Your task to perform on an android device: Set the phone to "Do not disturb". Image 0: 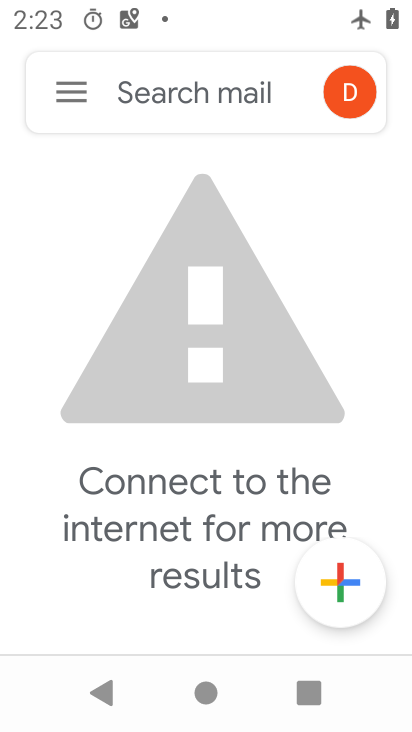
Step 0: press home button
Your task to perform on an android device: Set the phone to "Do not disturb". Image 1: 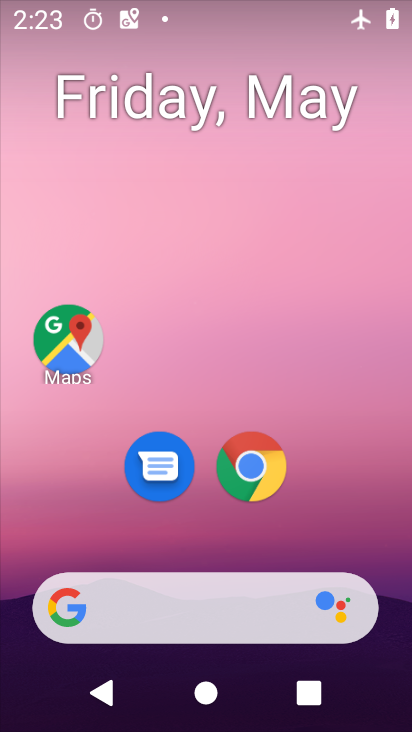
Step 1: drag from (364, 532) to (395, 9)
Your task to perform on an android device: Set the phone to "Do not disturb". Image 2: 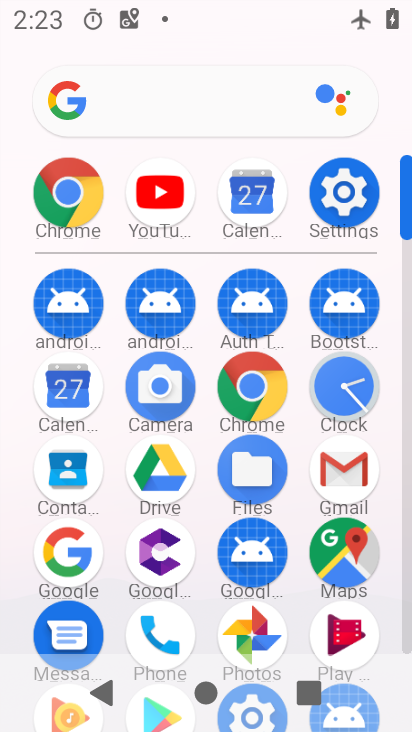
Step 2: click (356, 176)
Your task to perform on an android device: Set the phone to "Do not disturb". Image 3: 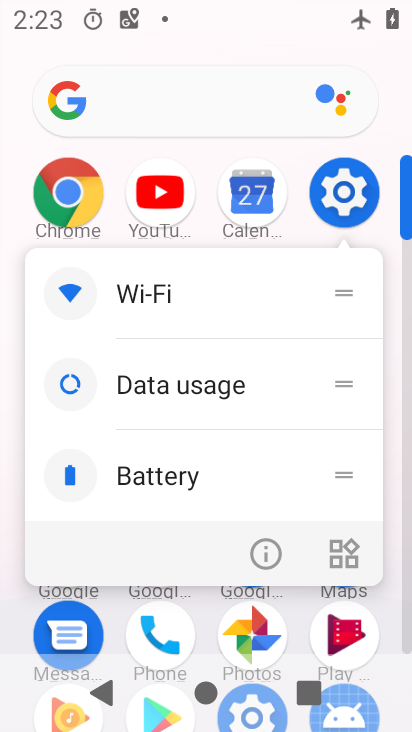
Step 3: click (356, 176)
Your task to perform on an android device: Set the phone to "Do not disturb". Image 4: 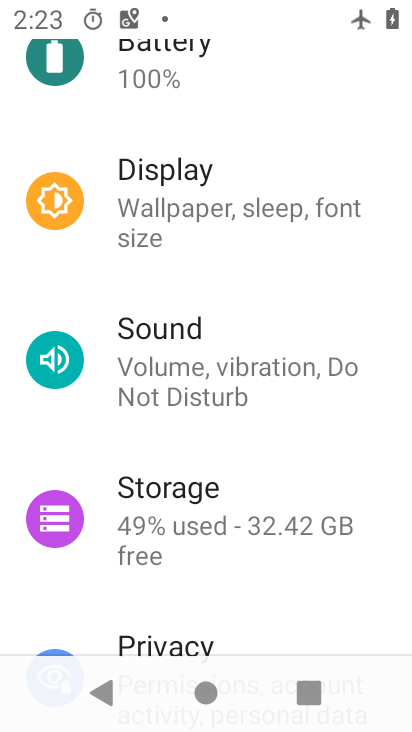
Step 4: drag from (196, 140) to (201, 537)
Your task to perform on an android device: Set the phone to "Do not disturb". Image 5: 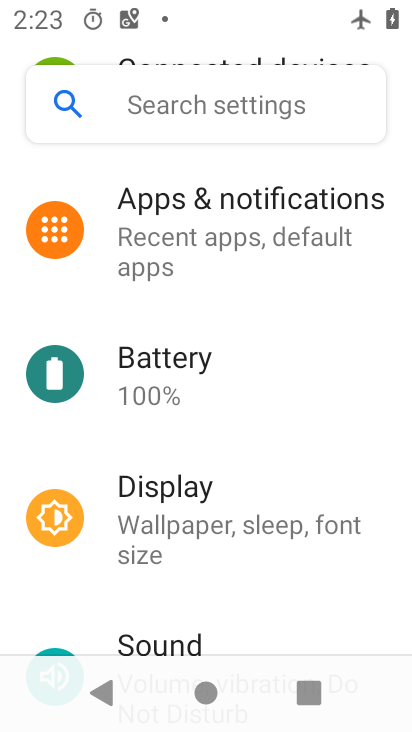
Step 5: drag from (237, 226) to (287, 629)
Your task to perform on an android device: Set the phone to "Do not disturb". Image 6: 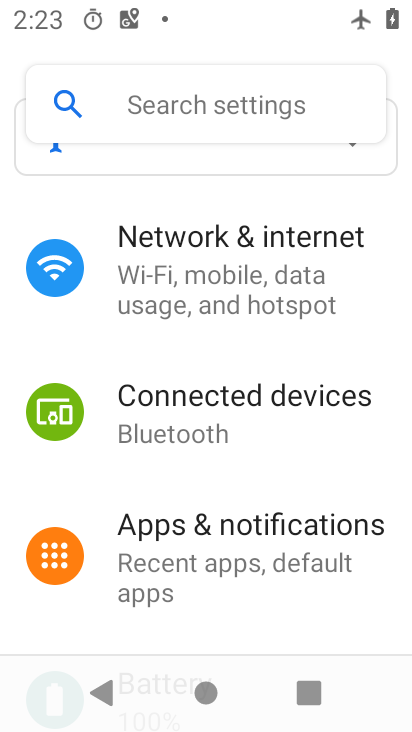
Step 6: drag from (245, 610) to (285, 237)
Your task to perform on an android device: Set the phone to "Do not disturb". Image 7: 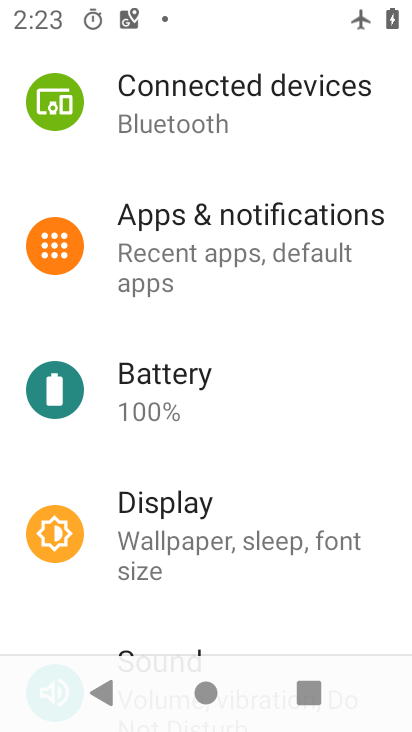
Step 7: drag from (237, 605) to (287, 179)
Your task to perform on an android device: Set the phone to "Do not disturb". Image 8: 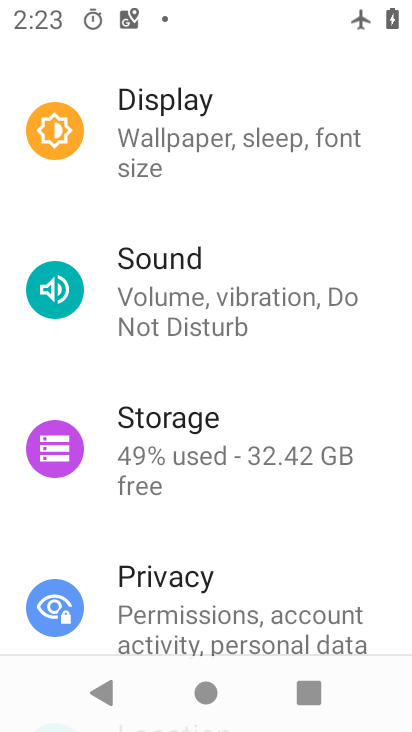
Step 8: drag from (246, 541) to (303, 150)
Your task to perform on an android device: Set the phone to "Do not disturb". Image 9: 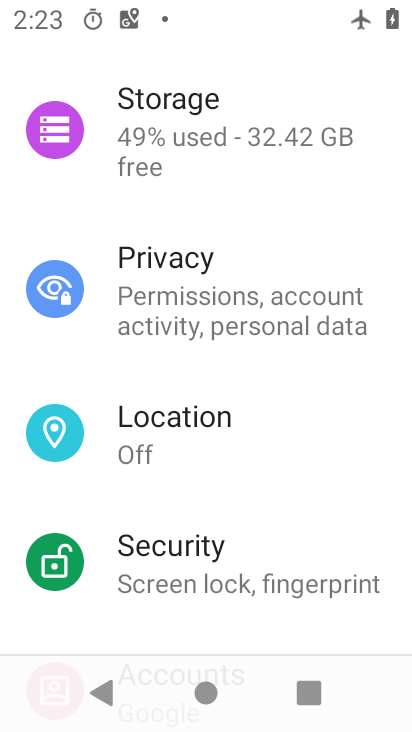
Step 9: drag from (265, 563) to (332, 129)
Your task to perform on an android device: Set the phone to "Do not disturb". Image 10: 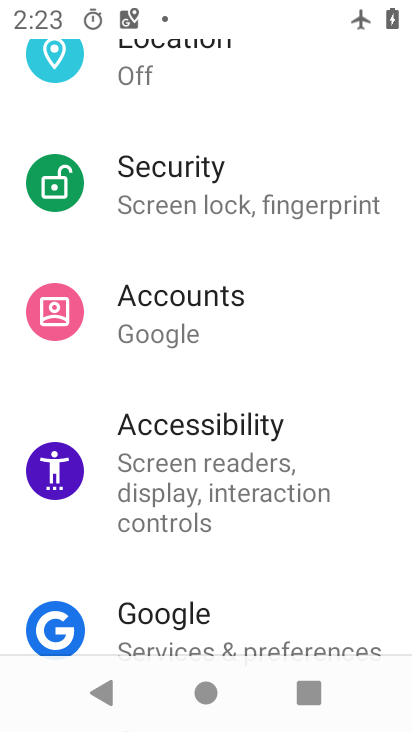
Step 10: drag from (248, 636) to (312, 188)
Your task to perform on an android device: Set the phone to "Do not disturb". Image 11: 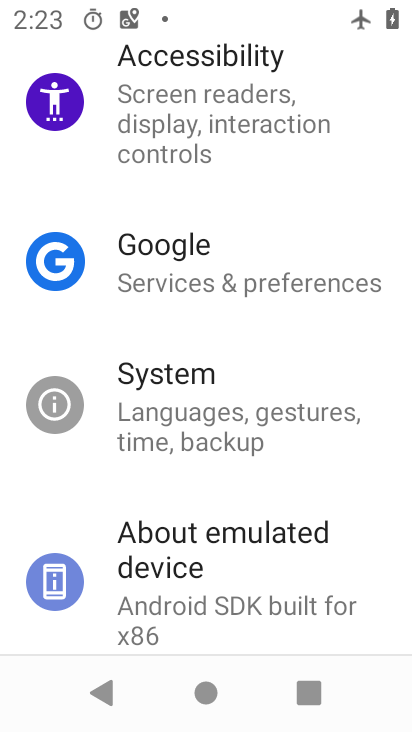
Step 11: drag from (230, 592) to (308, 148)
Your task to perform on an android device: Set the phone to "Do not disturb". Image 12: 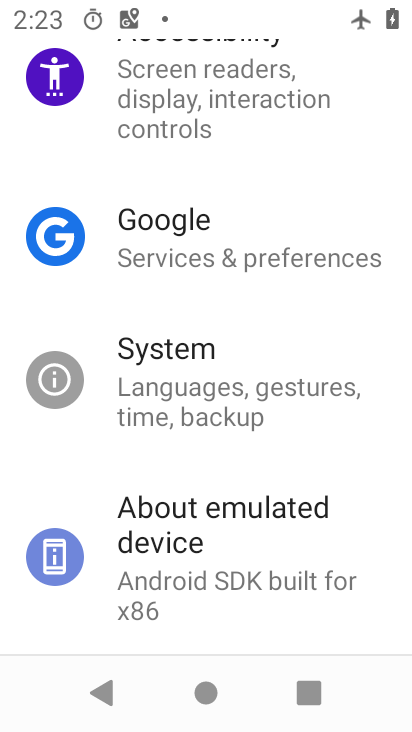
Step 12: drag from (308, 161) to (265, 624)
Your task to perform on an android device: Set the phone to "Do not disturb". Image 13: 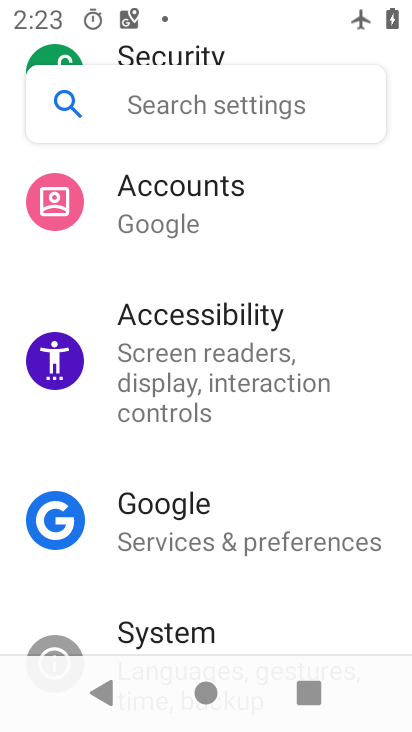
Step 13: drag from (226, 170) to (214, 715)
Your task to perform on an android device: Set the phone to "Do not disturb". Image 14: 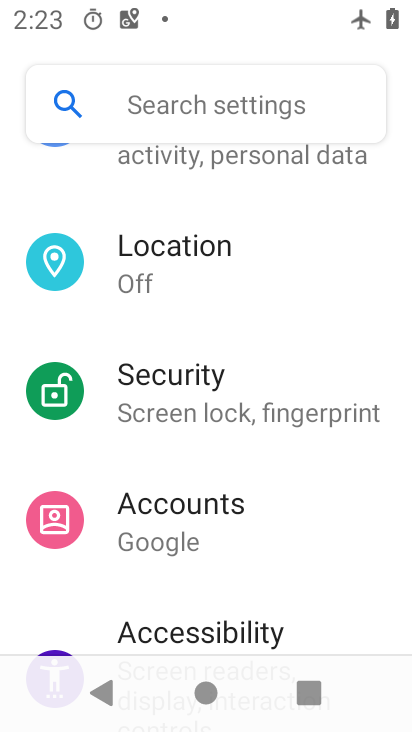
Step 14: drag from (282, 342) to (250, 662)
Your task to perform on an android device: Set the phone to "Do not disturb". Image 15: 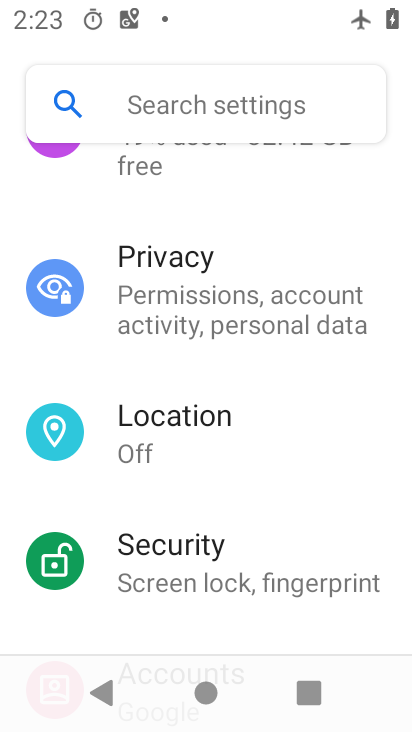
Step 15: drag from (273, 222) to (251, 683)
Your task to perform on an android device: Set the phone to "Do not disturb". Image 16: 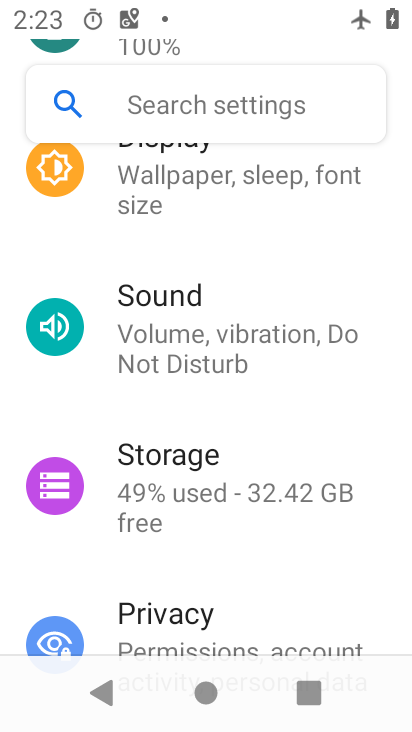
Step 16: click (221, 319)
Your task to perform on an android device: Set the phone to "Do not disturb". Image 17: 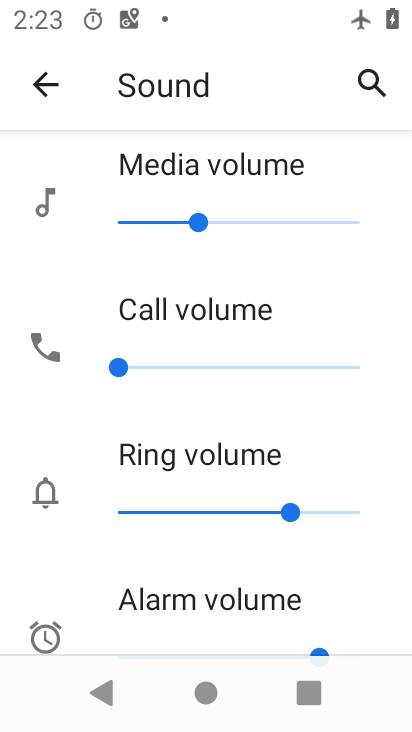
Step 17: drag from (256, 597) to (352, 214)
Your task to perform on an android device: Set the phone to "Do not disturb". Image 18: 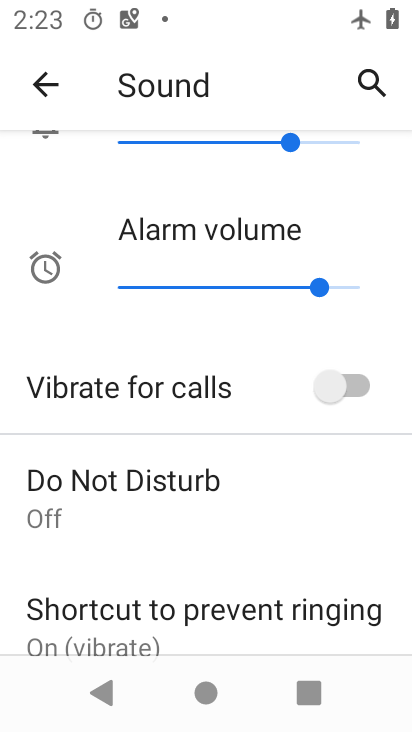
Step 18: drag from (295, 267) to (314, 566)
Your task to perform on an android device: Set the phone to "Do not disturb". Image 19: 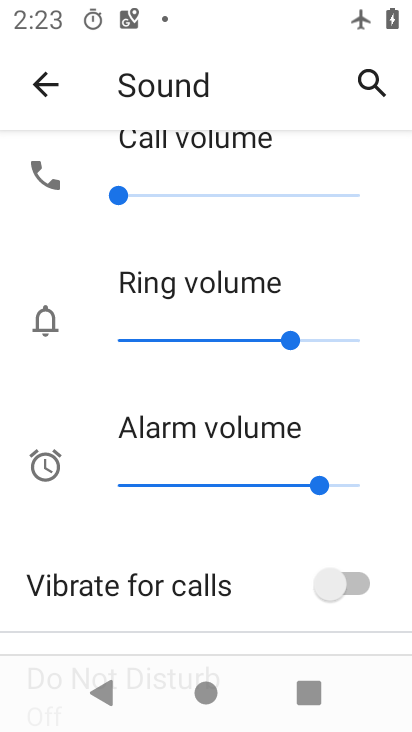
Step 19: drag from (279, 525) to (308, 134)
Your task to perform on an android device: Set the phone to "Do not disturb". Image 20: 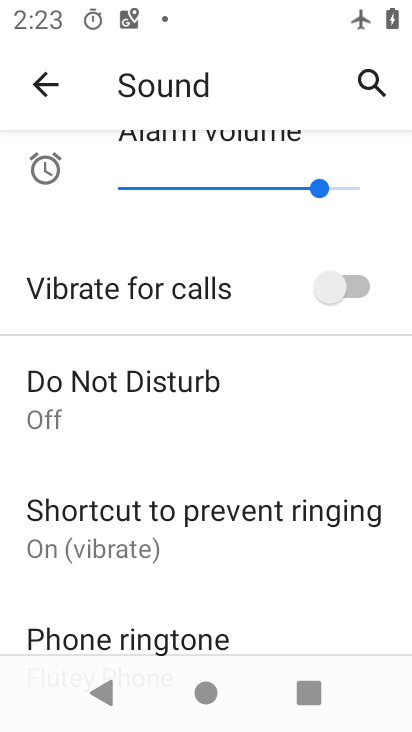
Step 20: click (118, 425)
Your task to perform on an android device: Set the phone to "Do not disturb". Image 21: 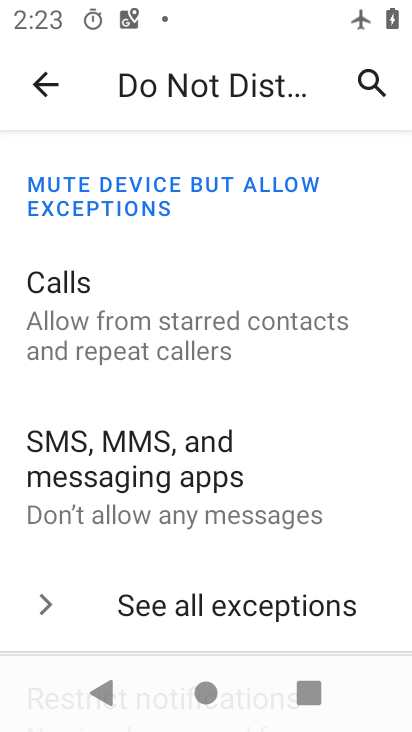
Step 21: task complete